Your task to perform on an android device: toggle location history Image 0: 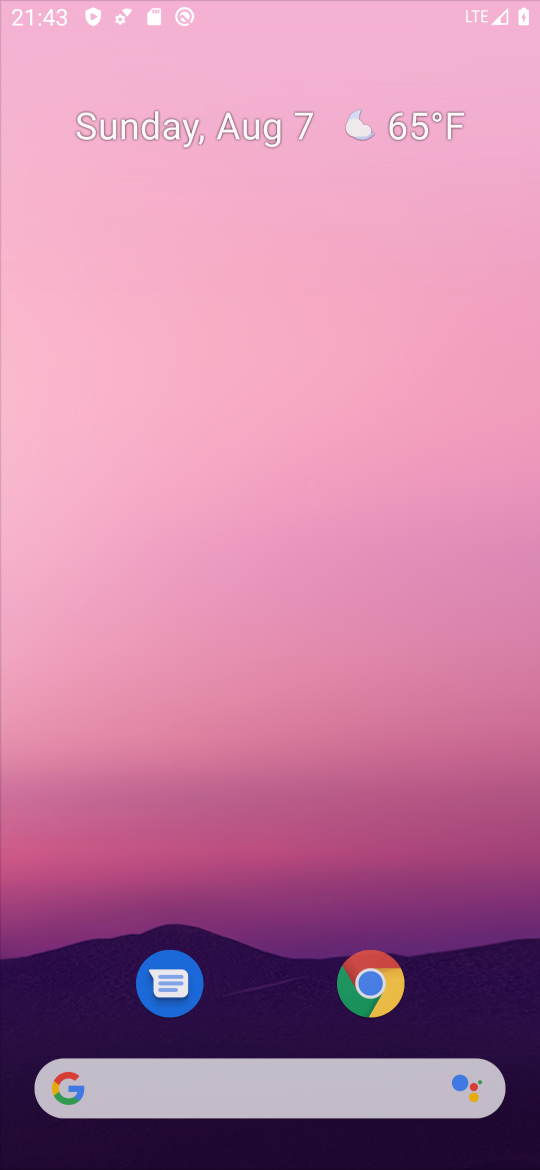
Step 0: click (346, 1132)
Your task to perform on an android device: toggle location history Image 1: 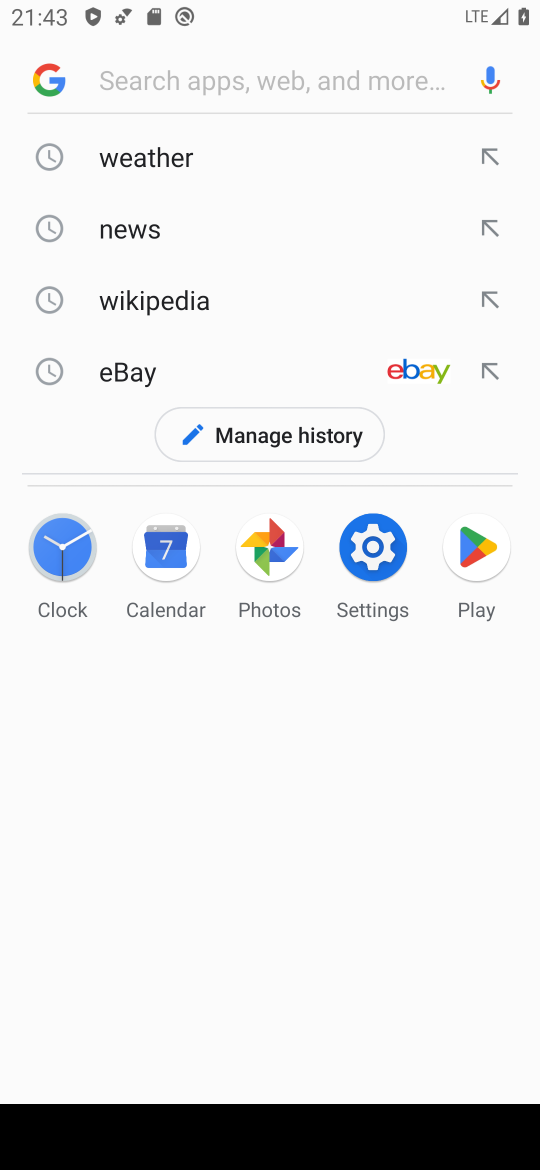
Step 1: press home button
Your task to perform on an android device: toggle location history Image 2: 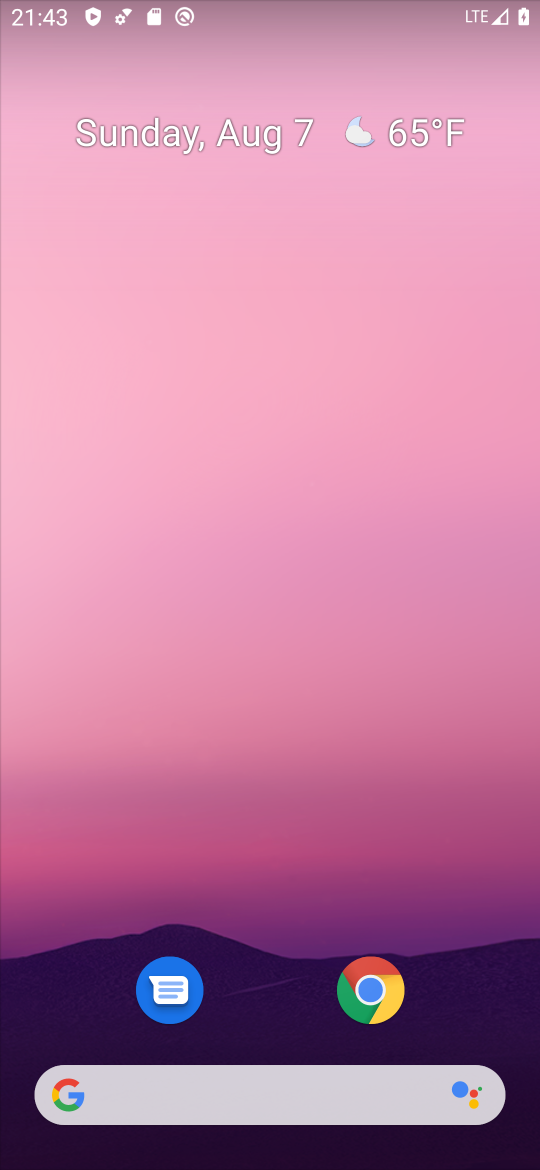
Step 2: drag from (370, 772) to (462, 0)
Your task to perform on an android device: toggle location history Image 3: 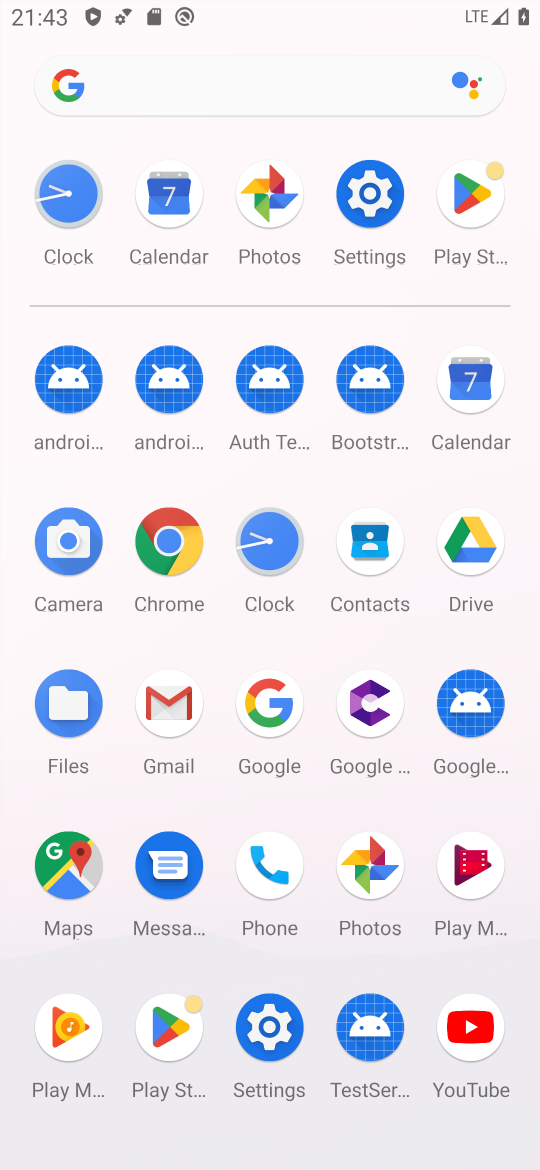
Step 3: click (366, 199)
Your task to perform on an android device: toggle location history Image 4: 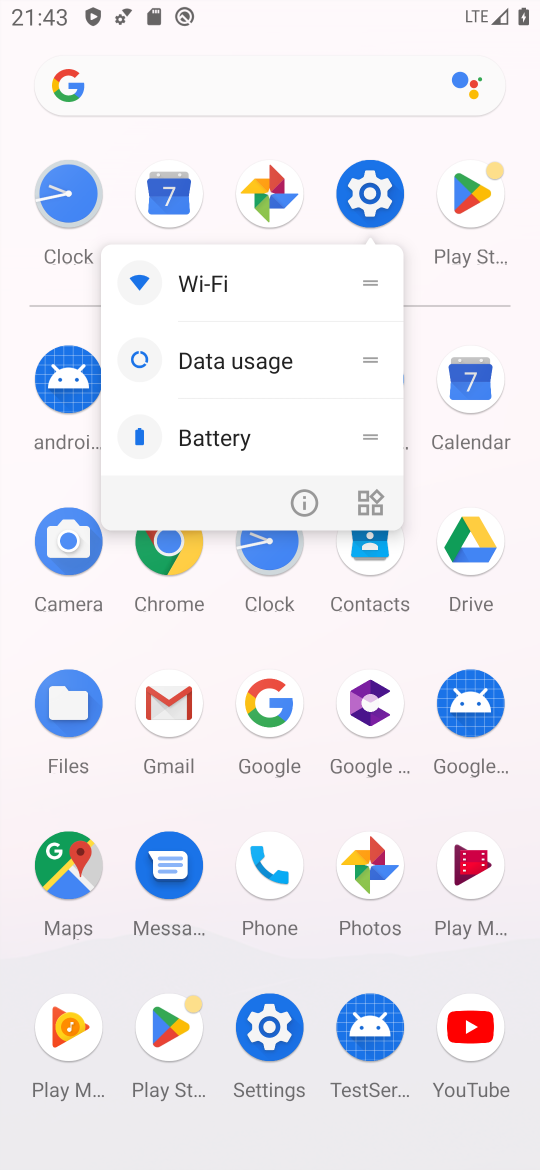
Step 4: click (366, 199)
Your task to perform on an android device: toggle location history Image 5: 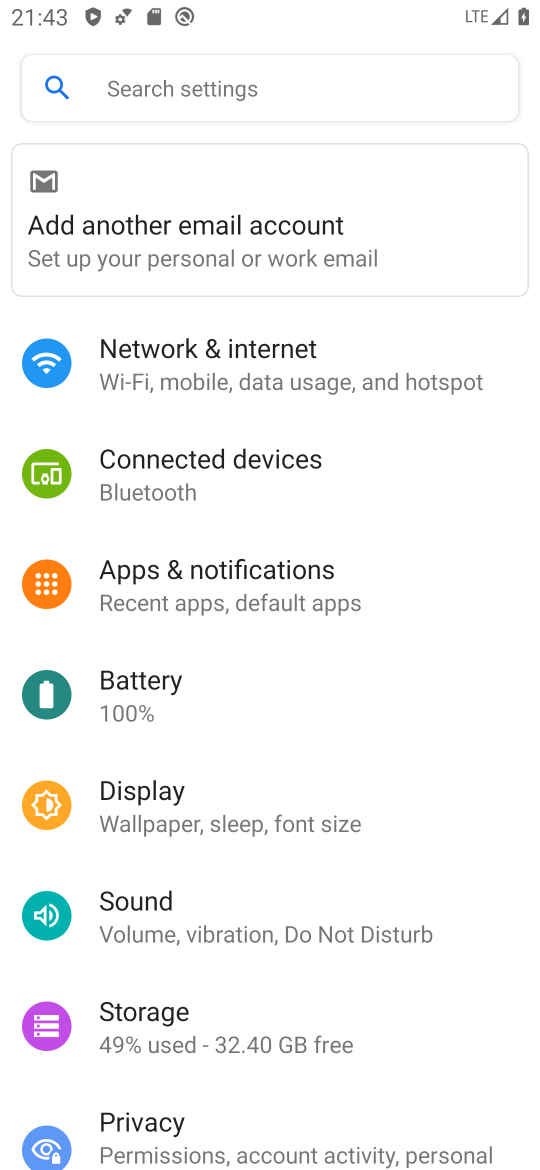
Step 5: drag from (447, 1011) to (482, 141)
Your task to perform on an android device: toggle location history Image 6: 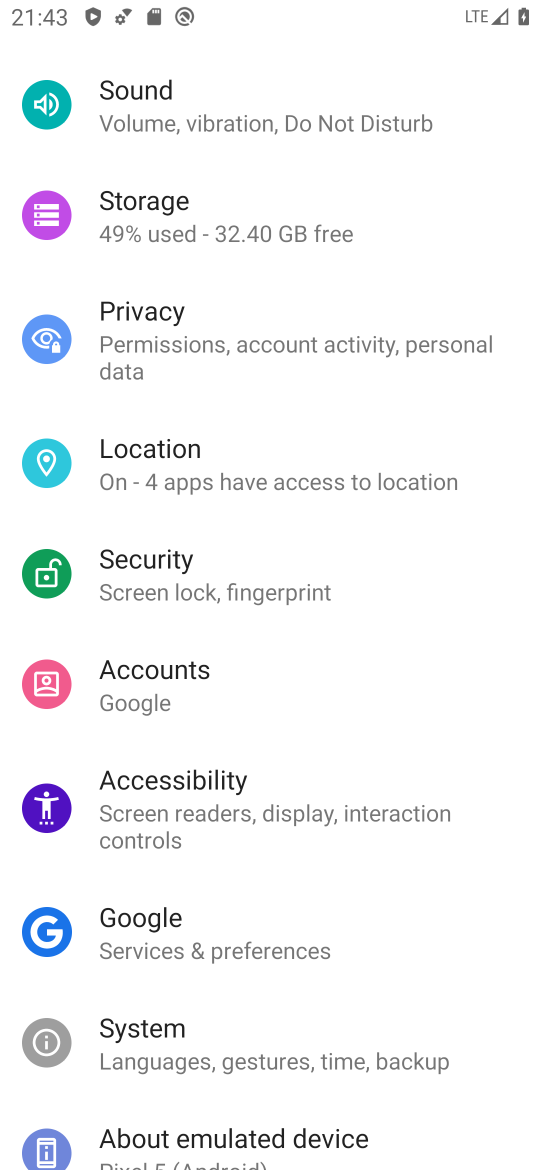
Step 6: click (351, 470)
Your task to perform on an android device: toggle location history Image 7: 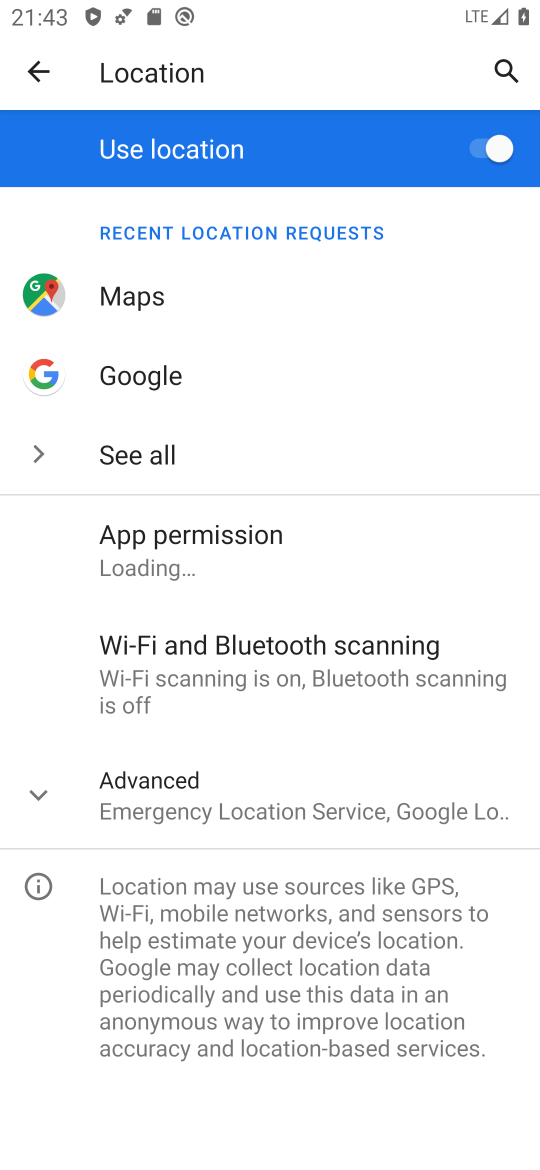
Step 7: click (47, 795)
Your task to perform on an android device: toggle location history Image 8: 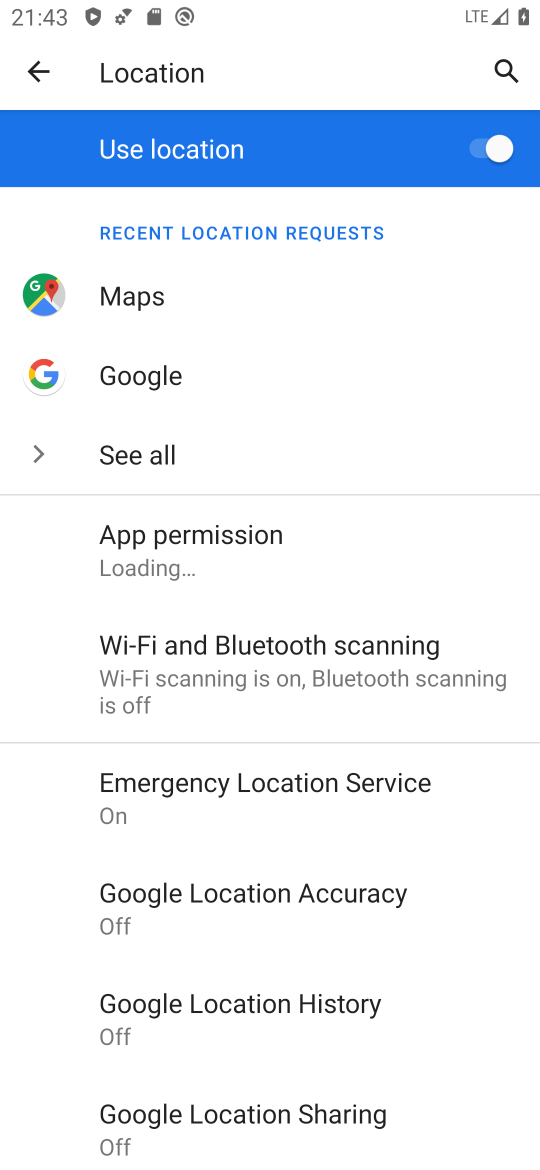
Step 8: click (343, 1011)
Your task to perform on an android device: toggle location history Image 9: 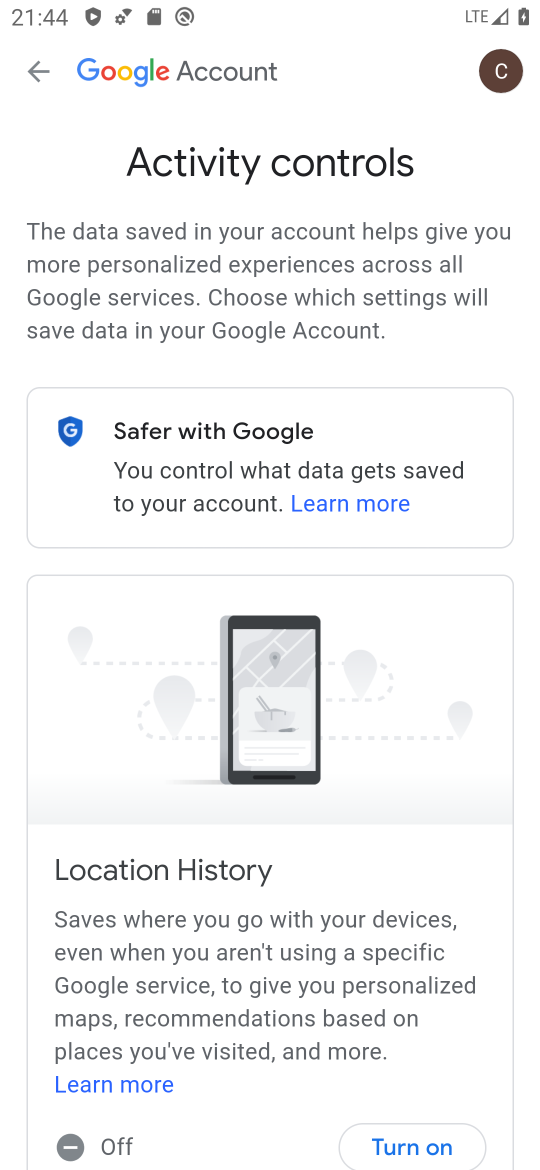
Step 9: click (425, 1139)
Your task to perform on an android device: toggle location history Image 10: 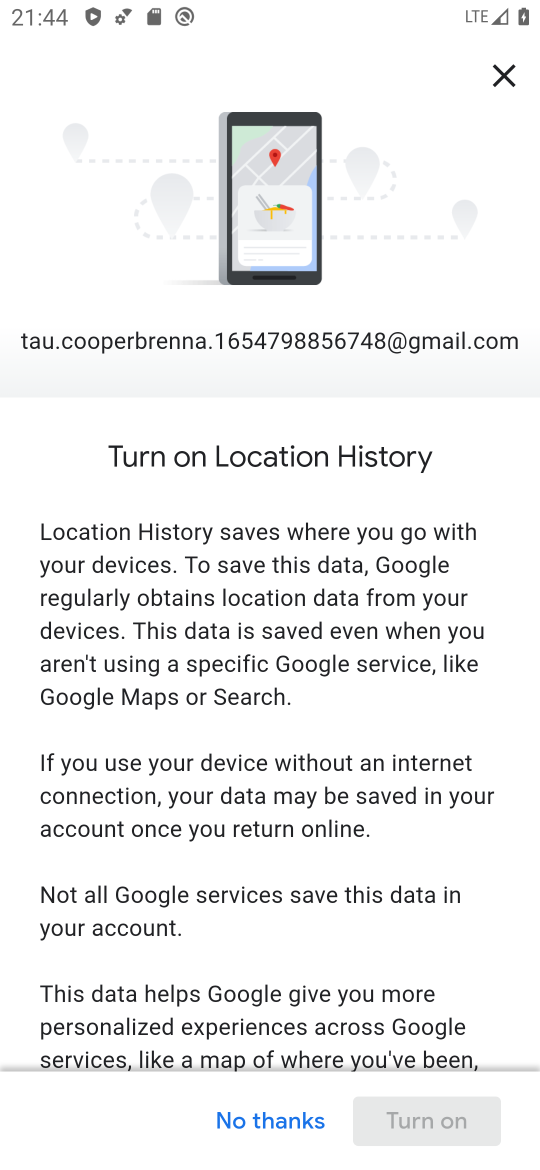
Step 10: drag from (292, 884) to (283, 332)
Your task to perform on an android device: toggle location history Image 11: 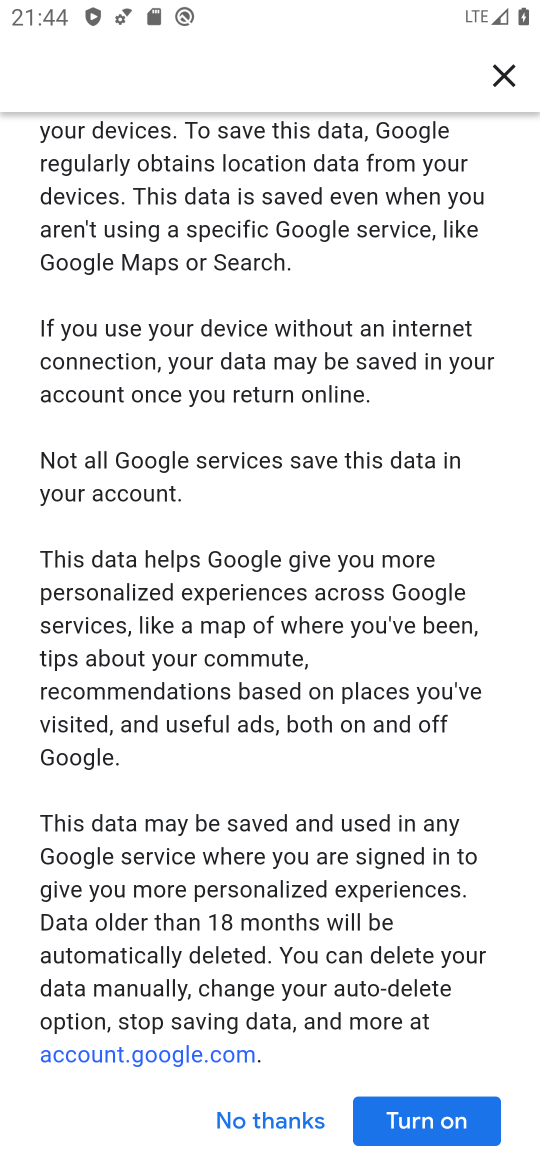
Step 11: click (470, 1133)
Your task to perform on an android device: toggle location history Image 12: 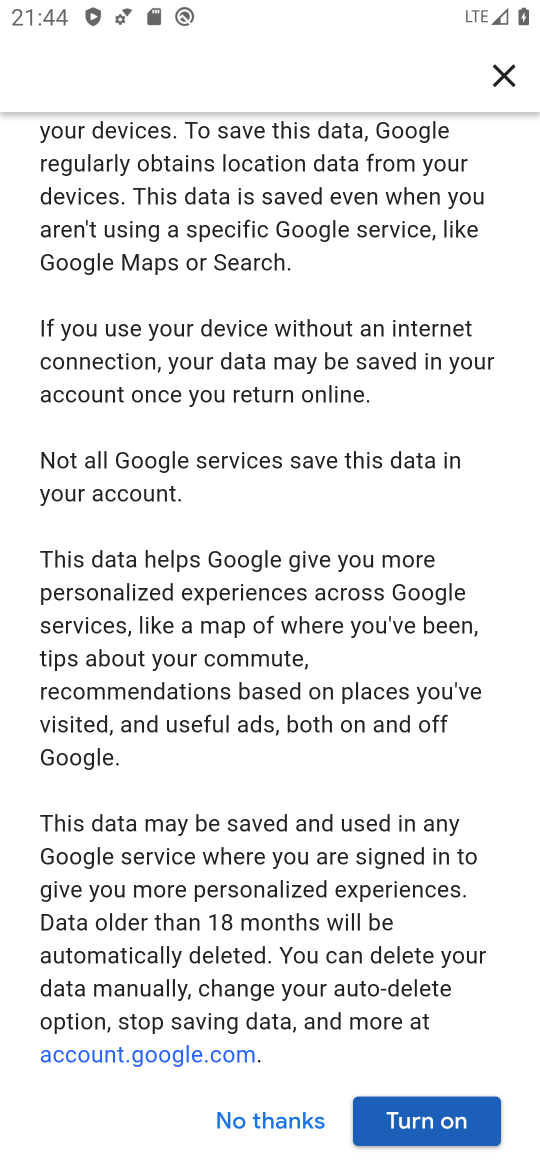
Step 12: click (470, 1131)
Your task to perform on an android device: toggle location history Image 13: 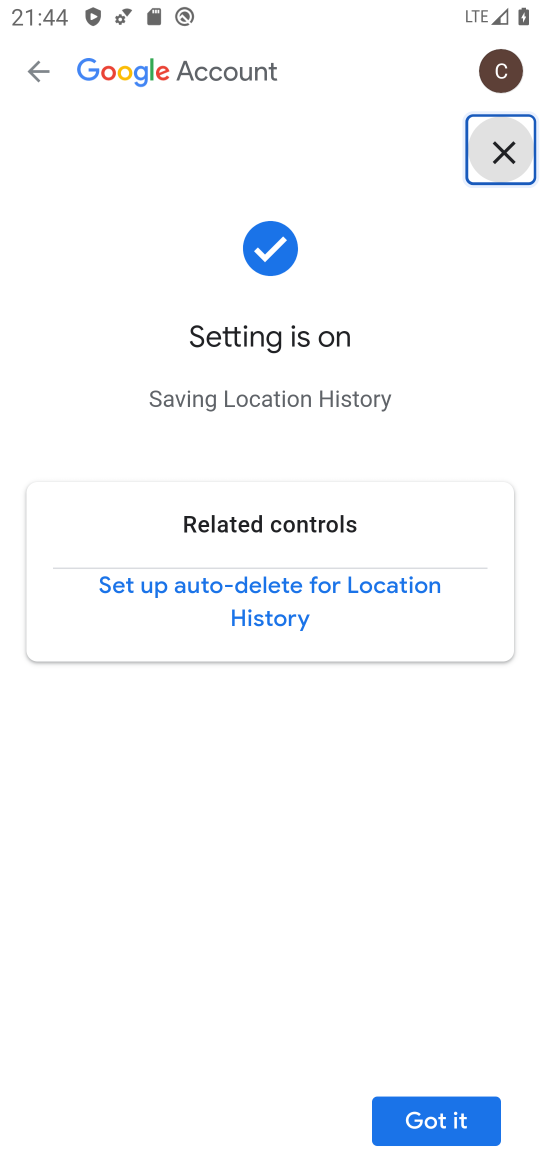
Step 13: click (470, 1129)
Your task to perform on an android device: toggle location history Image 14: 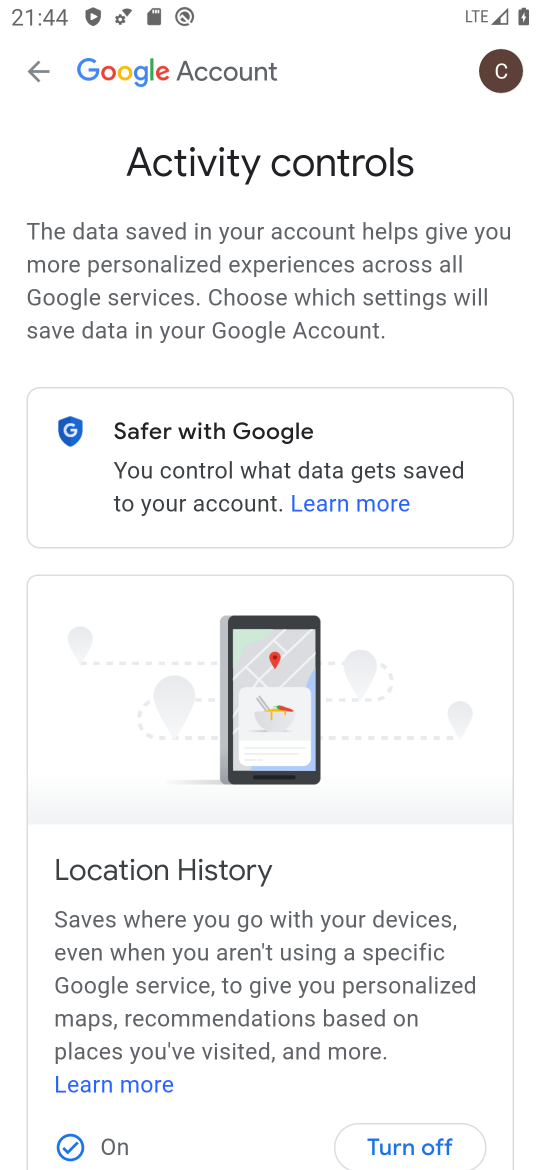
Step 14: task complete